Your task to perform on an android device: What is the recent news? Image 0: 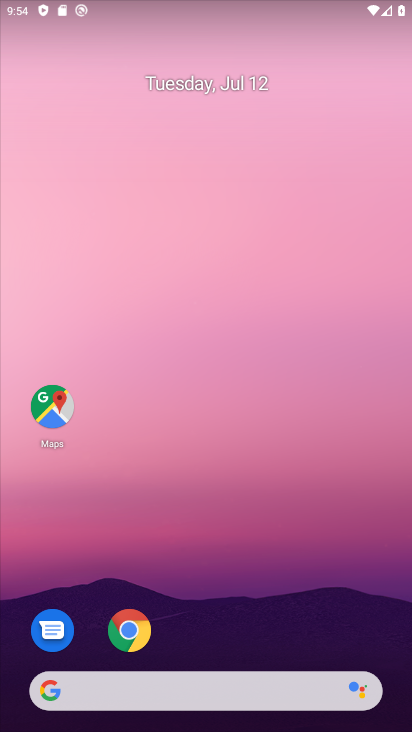
Step 0: click (118, 694)
Your task to perform on an android device: What is the recent news? Image 1: 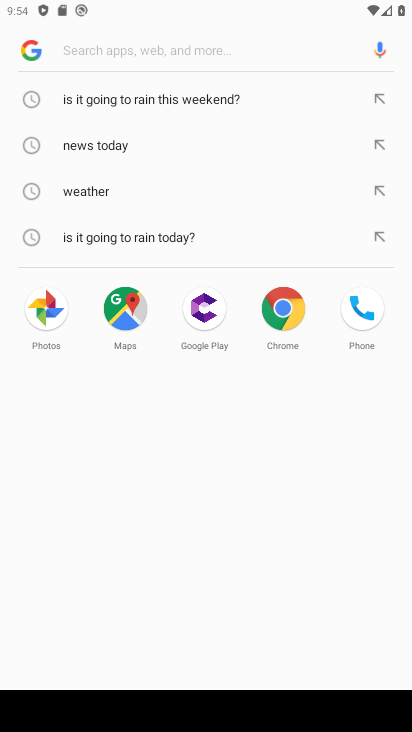
Step 1: click (40, 44)
Your task to perform on an android device: What is the recent news? Image 2: 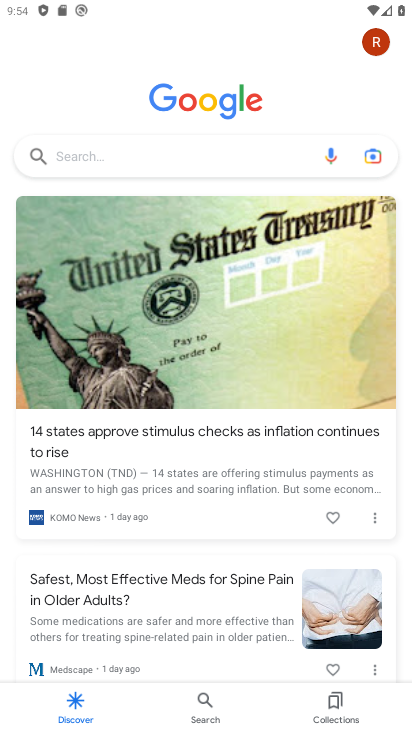
Step 2: task complete